Your task to perform on an android device: Go to accessibility settings Image 0: 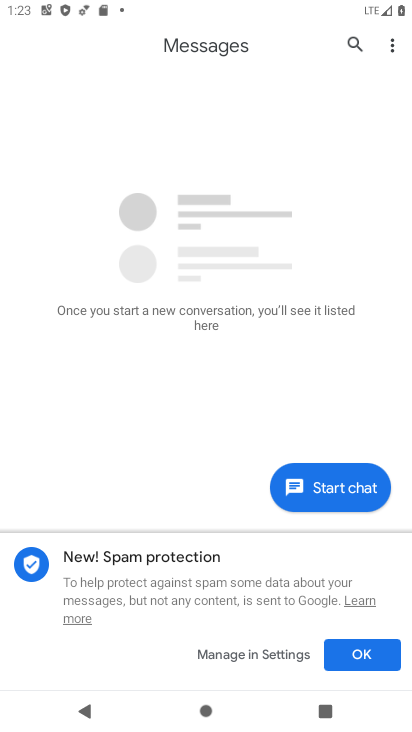
Step 0: press home button
Your task to perform on an android device: Go to accessibility settings Image 1: 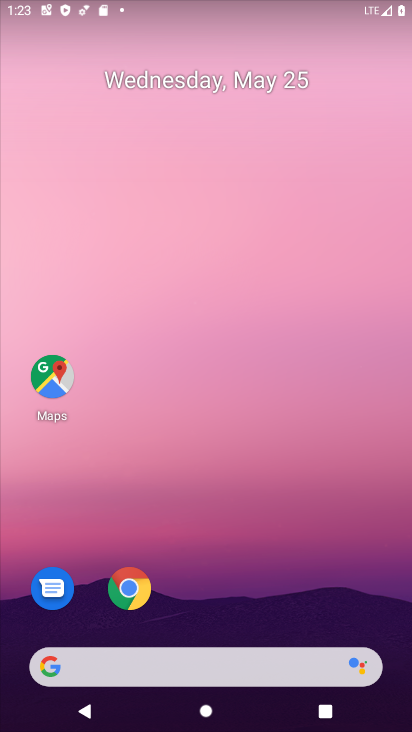
Step 1: drag from (310, 609) to (333, 8)
Your task to perform on an android device: Go to accessibility settings Image 2: 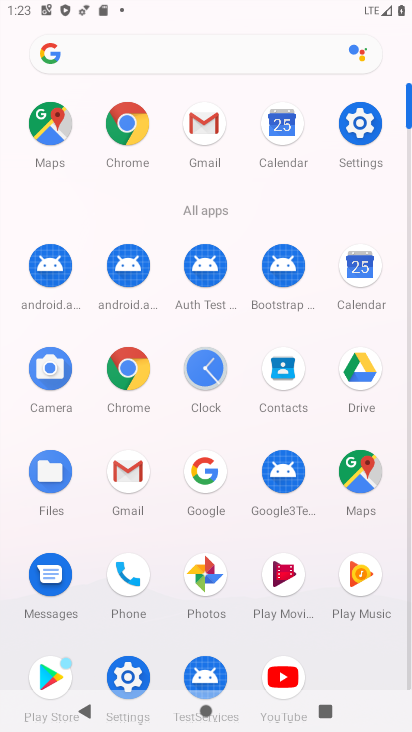
Step 2: click (356, 128)
Your task to perform on an android device: Go to accessibility settings Image 3: 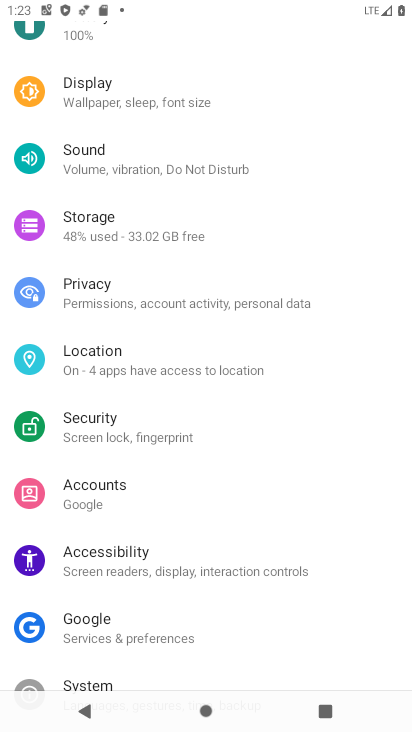
Step 3: click (112, 563)
Your task to perform on an android device: Go to accessibility settings Image 4: 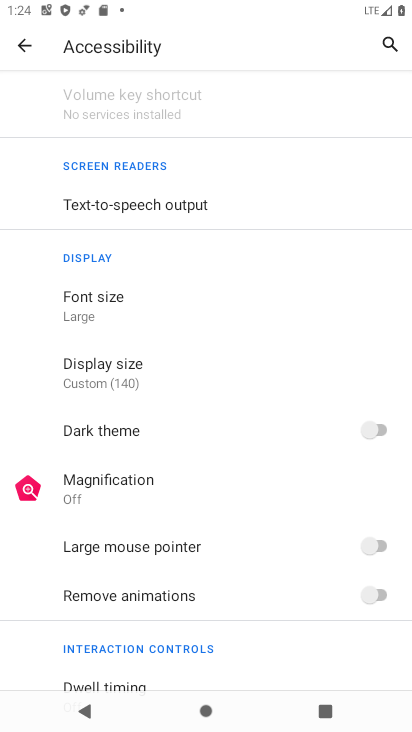
Step 4: task complete